Your task to perform on an android device: turn pop-ups off in chrome Image 0: 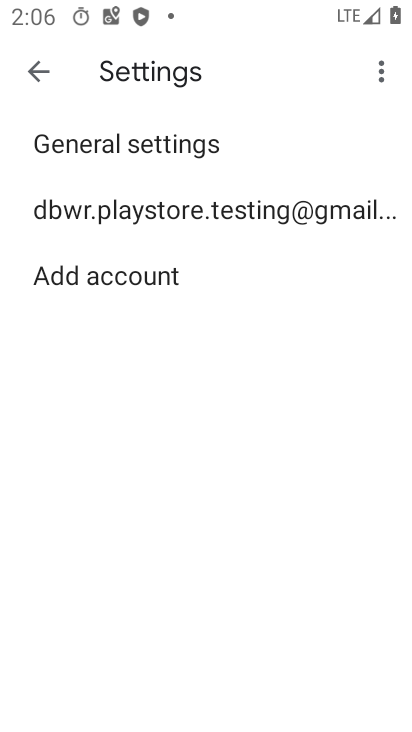
Step 0: press back button
Your task to perform on an android device: turn pop-ups off in chrome Image 1: 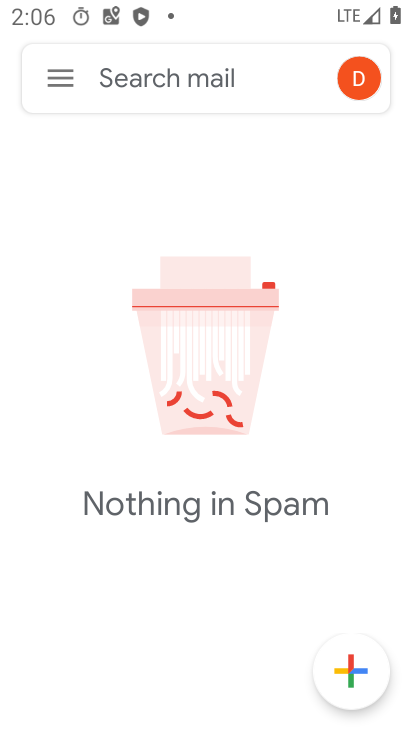
Step 1: press back button
Your task to perform on an android device: turn pop-ups off in chrome Image 2: 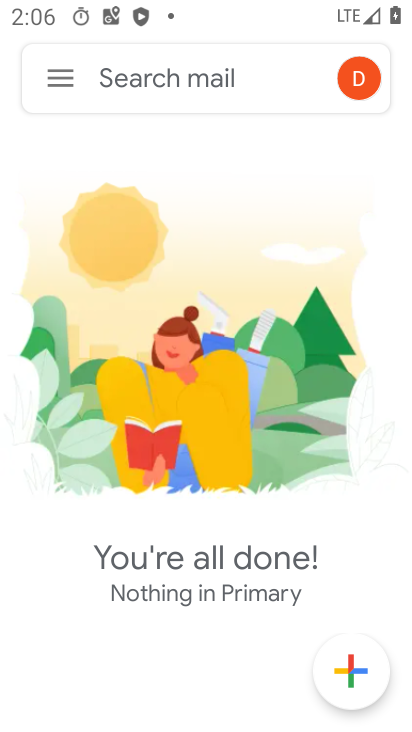
Step 2: press back button
Your task to perform on an android device: turn pop-ups off in chrome Image 3: 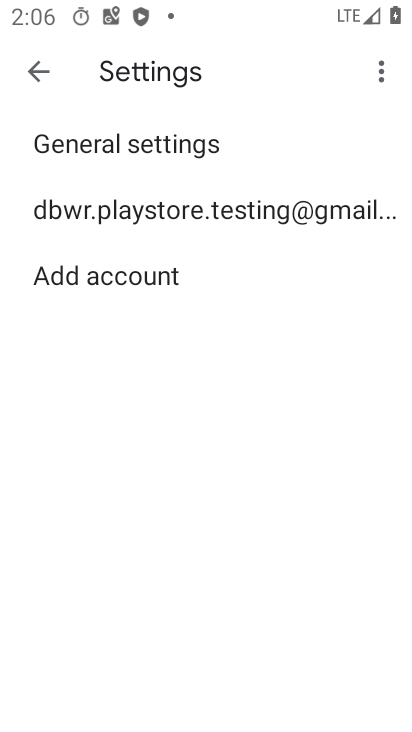
Step 3: press home button
Your task to perform on an android device: turn pop-ups off in chrome Image 4: 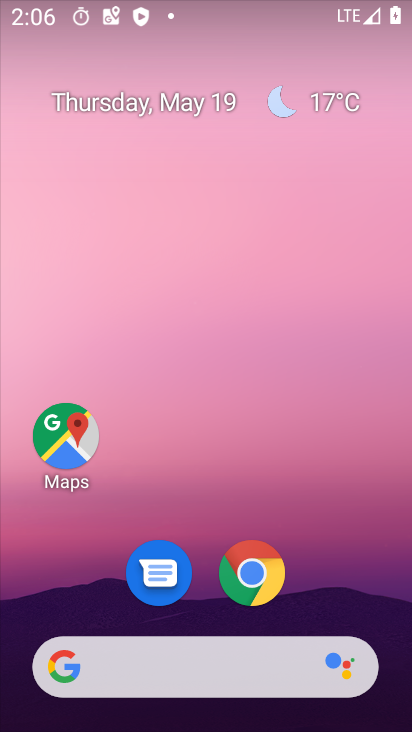
Step 4: click (243, 575)
Your task to perform on an android device: turn pop-ups off in chrome Image 5: 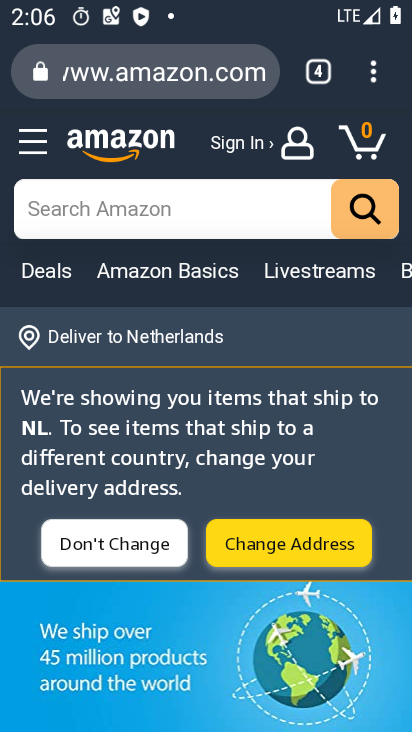
Step 5: drag from (368, 64) to (117, 571)
Your task to perform on an android device: turn pop-ups off in chrome Image 6: 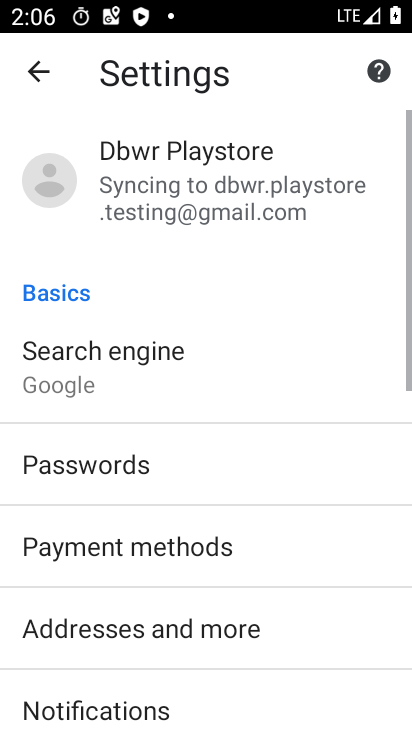
Step 6: drag from (192, 605) to (307, 130)
Your task to perform on an android device: turn pop-ups off in chrome Image 7: 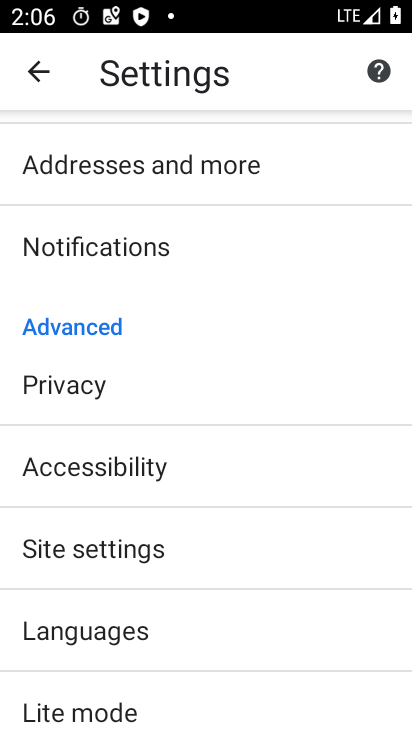
Step 7: click (129, 532)
Your task to perform on an android device: turn pop-ups off in chrome Image 8: 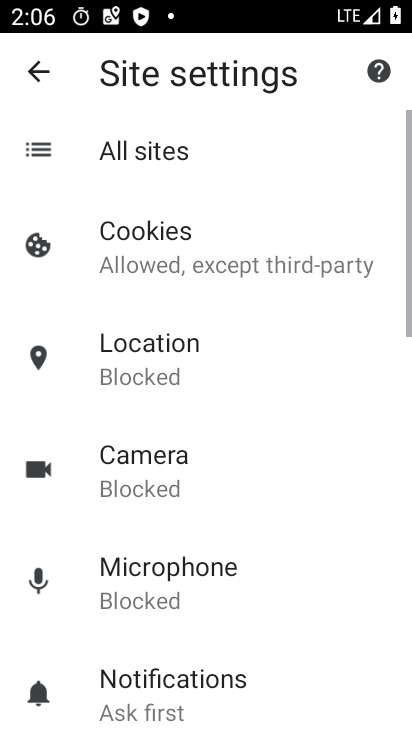
Step 8: drag from (212, 666) to (317, 139)
Your task to perform on an android device: turn pop-ups off in chrome Image 9: 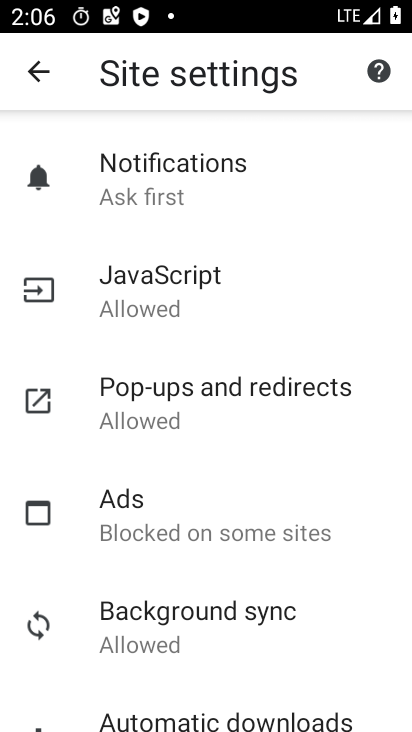
Step 9: click (174, 387)
Your task to perform on an android device: turn pop-ups off in chrome Image 10: 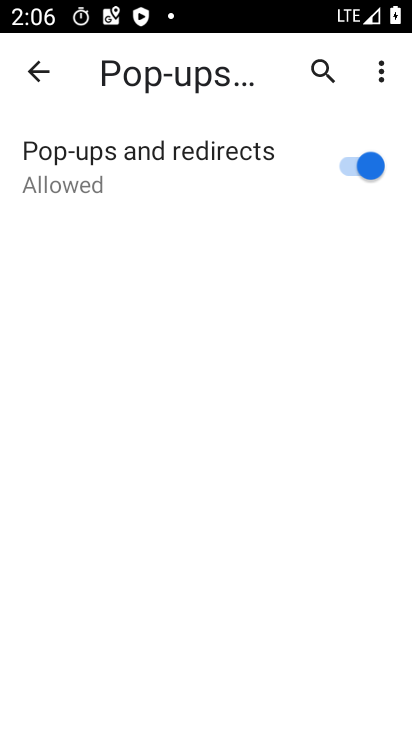
Step 10: click (369, 160)
Your task to perform on an android device: turn pop-ups off in chrome Image 11: 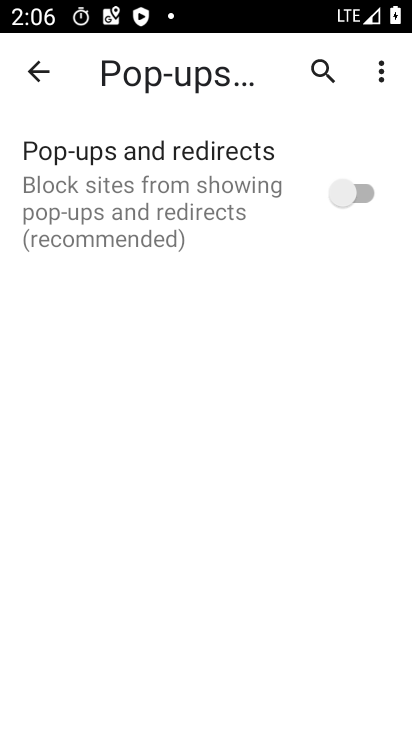
Step 11: task complete